Your task to perform on an android device: toggle javascript in the chrome app Image 0: 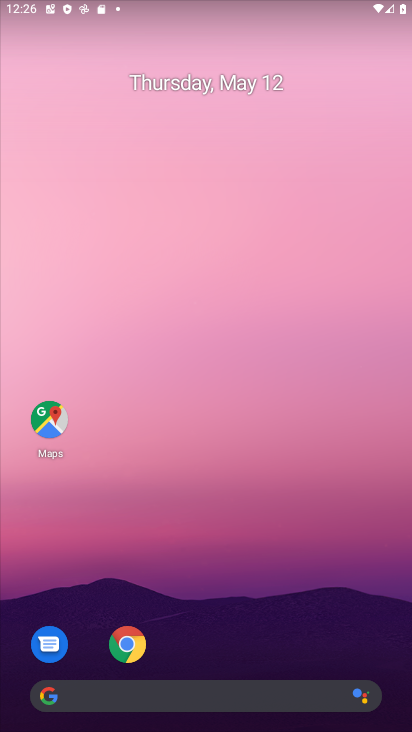
Step 0: click (144, 644)
Your task to perform on an android device: toggle javascript in the chrome app Image 1: 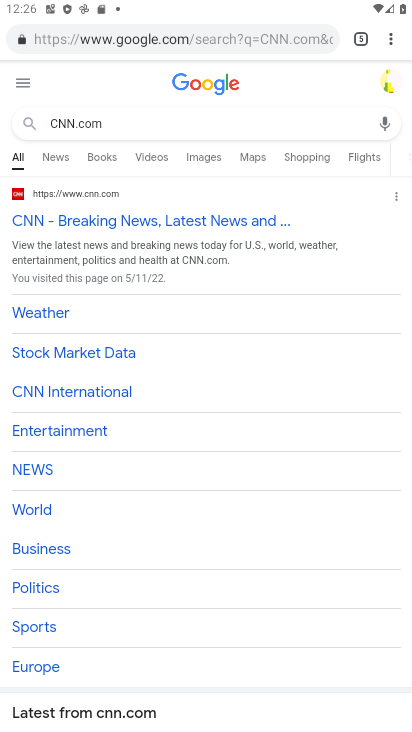
Step 1: click (383, 46)
Your task to perform on an android device: toggle javascript in the chrome app Image 2: 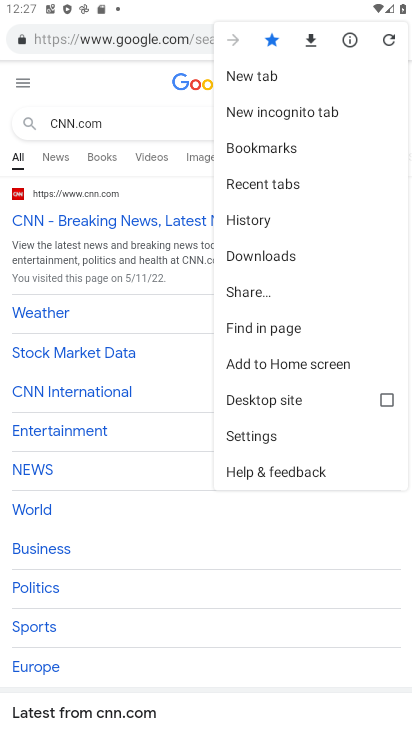
Step 2: click (262, 438)
Your task to perform on an android device: toggle javascript in the chrome app Image 3: 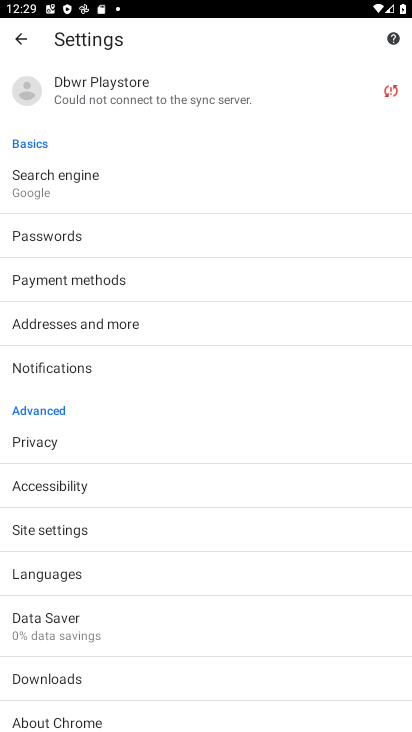
Step 3: click (219, 532)
Your task to perform on an android device: toggle javascript in the chrome app Image 4: 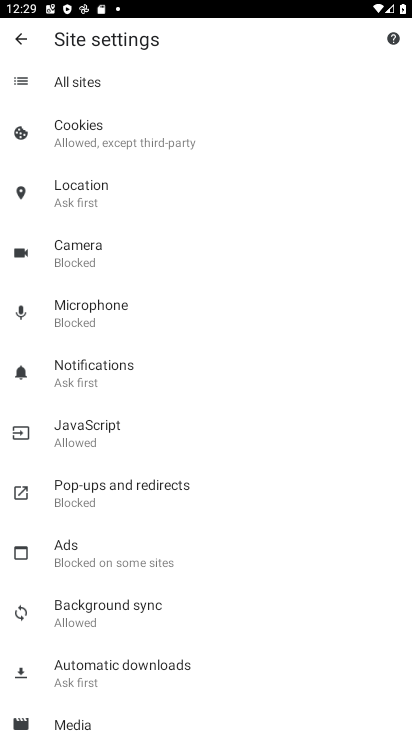
Step 4: click (119, 430)
Your task to perform on an android device: toggle javascript in the chrome app Image 5: 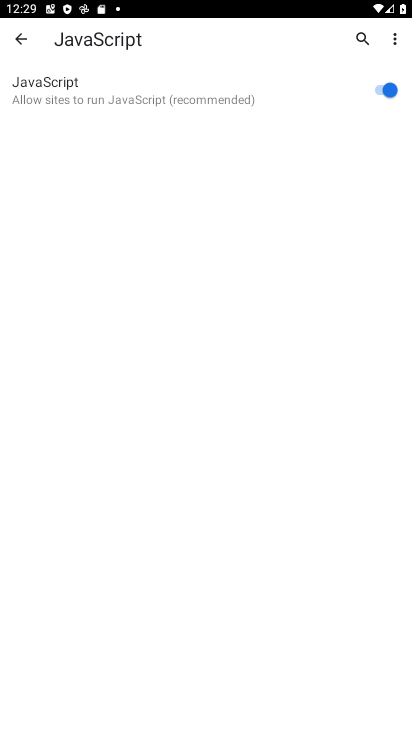
Step 5: click (375, 98)
Your task to perform on an android device: toggle javascript in the chrome app Image 6: 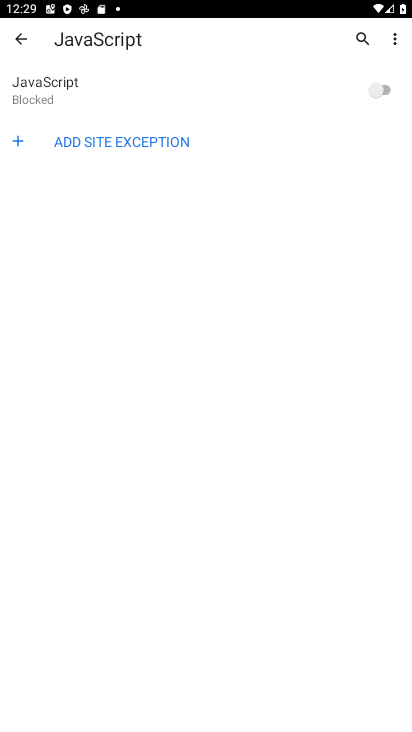
Step 6: task complete